Your task to perform on an android device: delete location history Image 0: 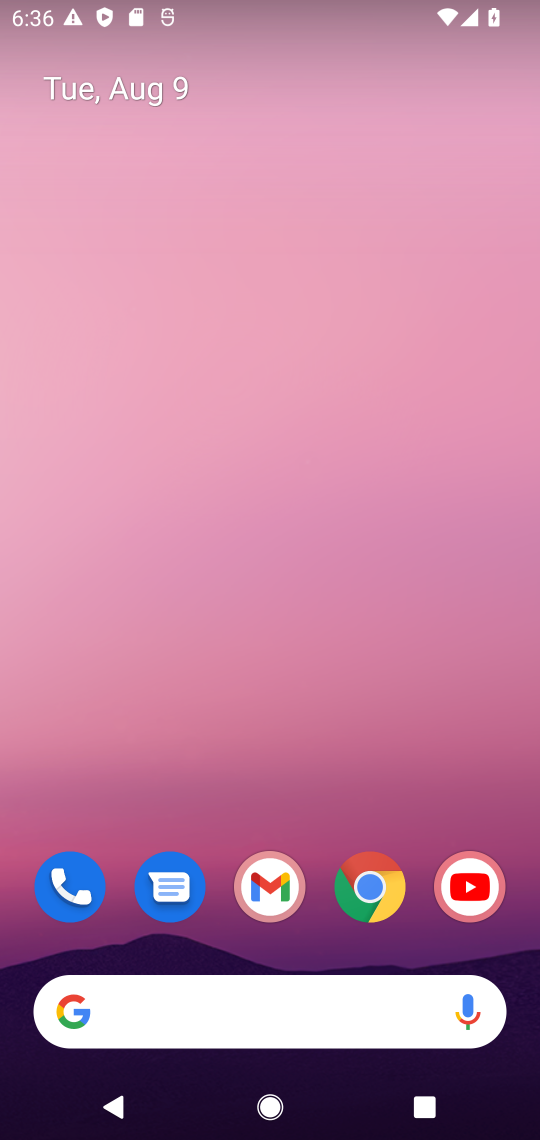
Step 0: drag from (326, 568) to (334, 0)
Your task to perform on an android device: delete location history Image 1: 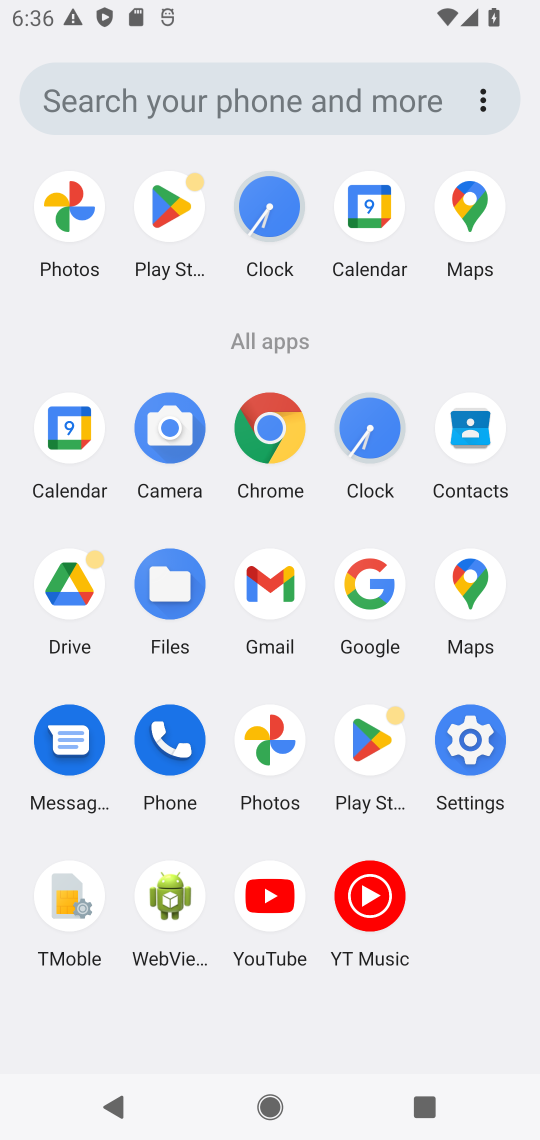
Step 1: click (479, 198)
Your task to perform on an android device: delete location history Image 2: 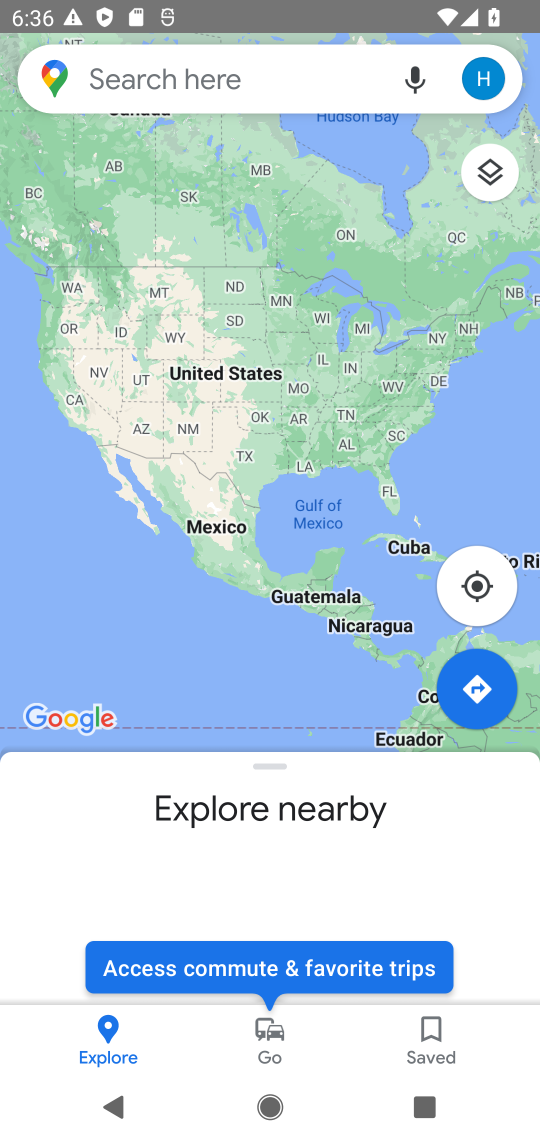
Step 2: click (485, 81)
Your task to perform on an android device: delete location history Image 3: 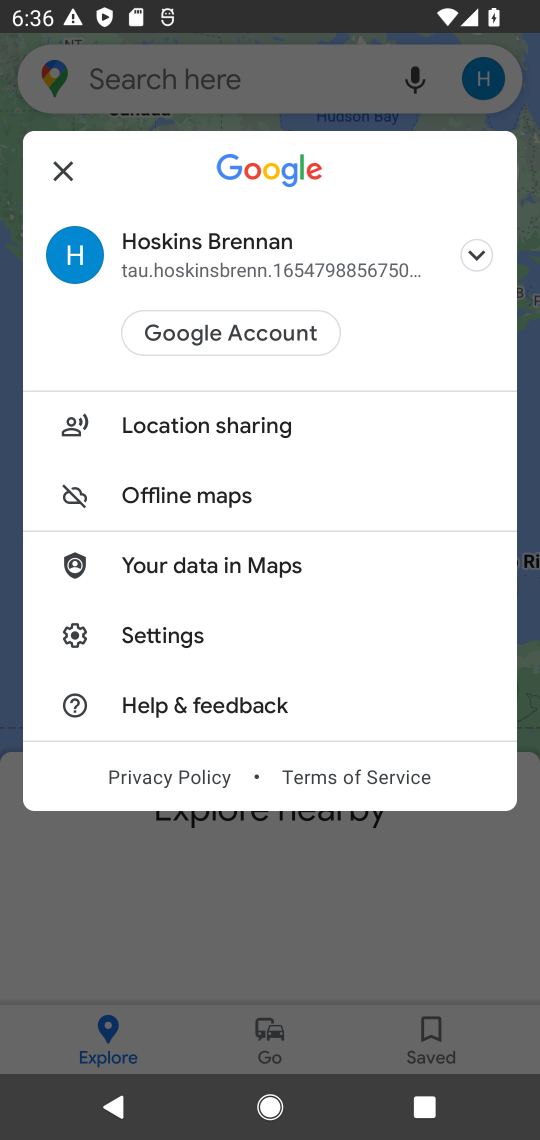
Step 3: drag from (294, 624) to (392, 355)
Your task to perform on an android device: delete location history Image 4: 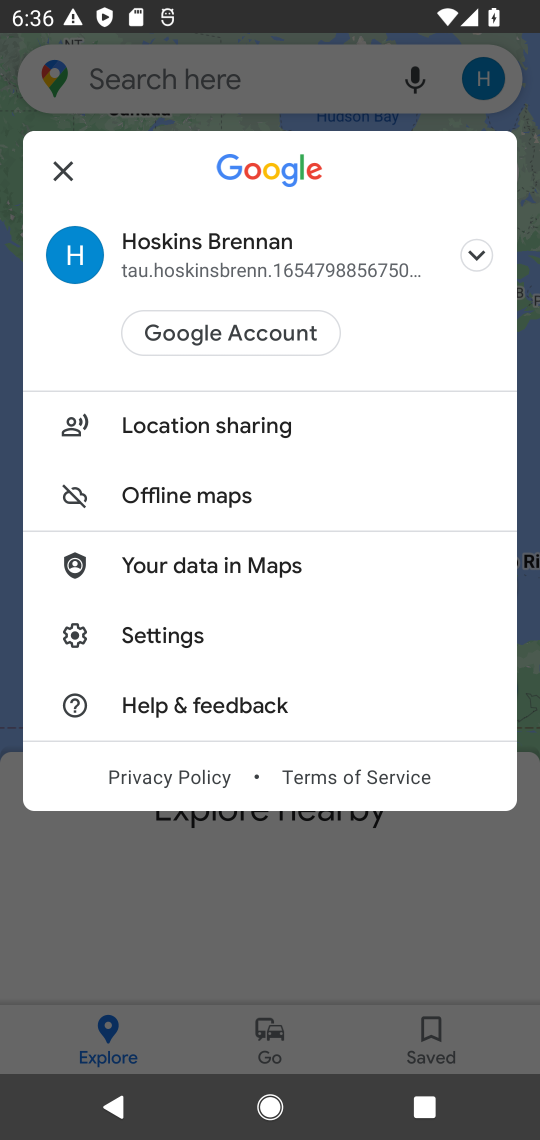
Step 4: click (207, 493)
Your task to perform on an android device: delete location history Image 5: 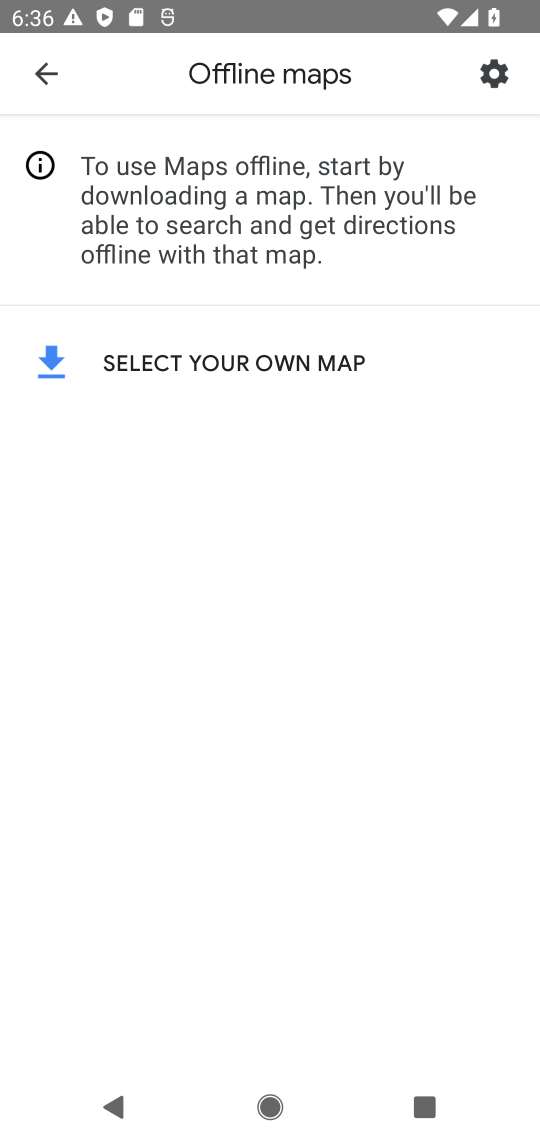
Step 5: click (48, 71)
Your task to perform on an android device: delete location history Image 6: 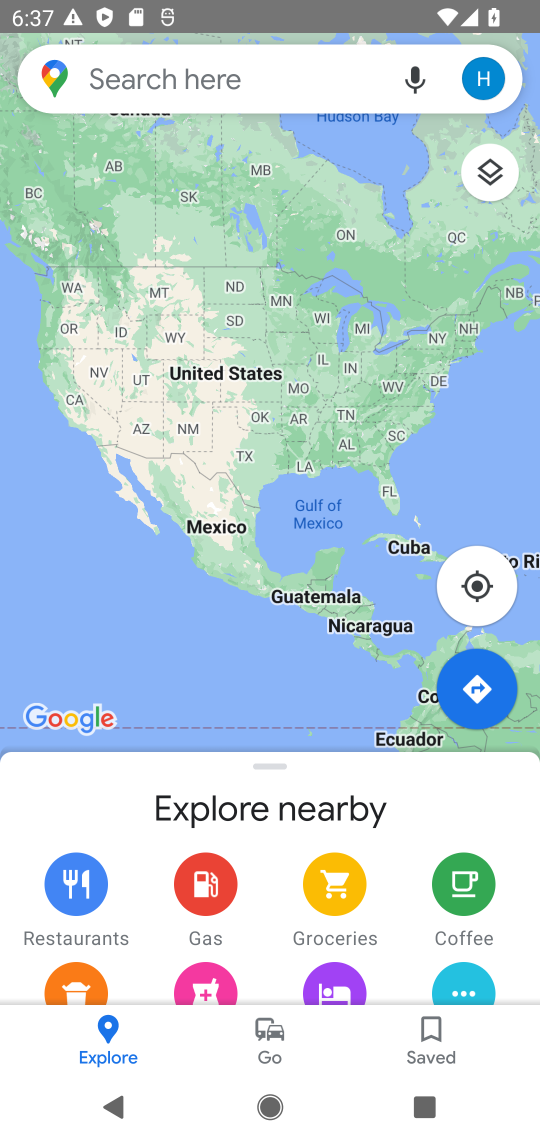
Step 6: click (267, 79)
Your task to perform on an android device: delete location history Image 7: 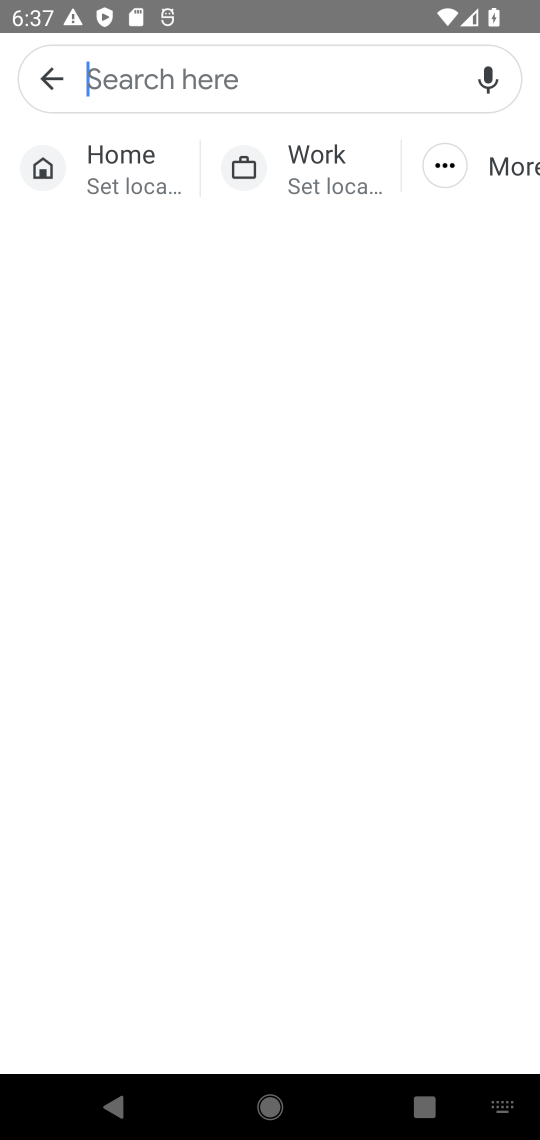
Step 7: click (452, 156)
Your task to perform on an android device: delete location history Image 8: 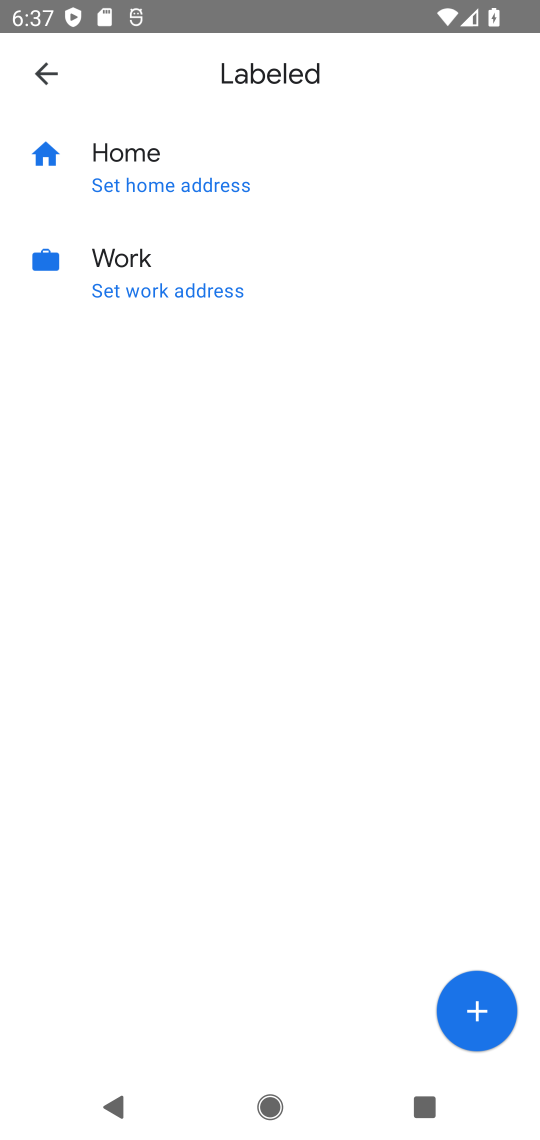
Step 8: click (45, 76)
Your task to perform on an android device: delete location history Image 9: 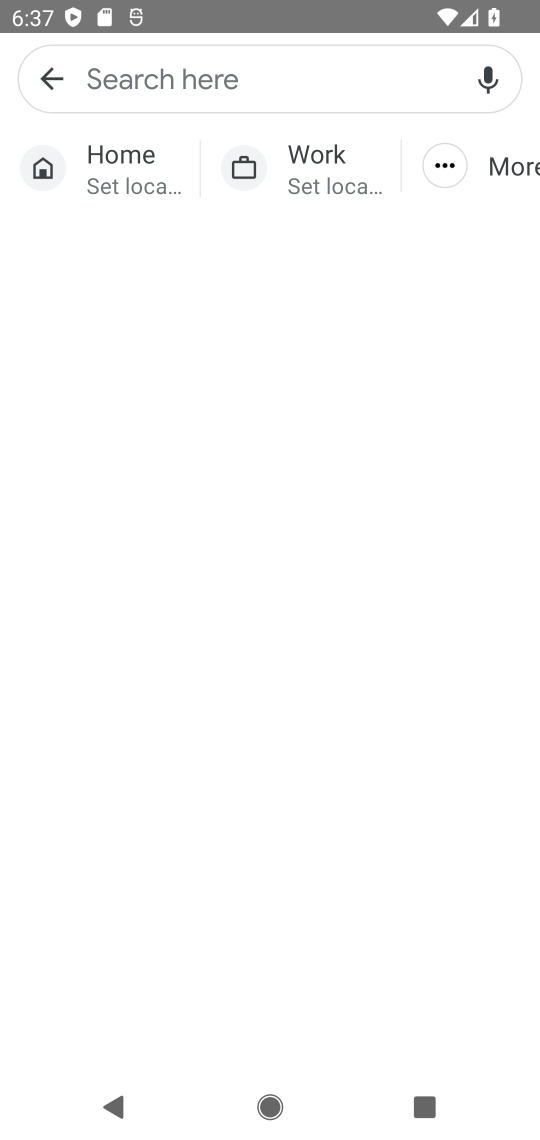
Step 9: click (45, 78)
Your task to perform on an android device: delete location history Image 10: 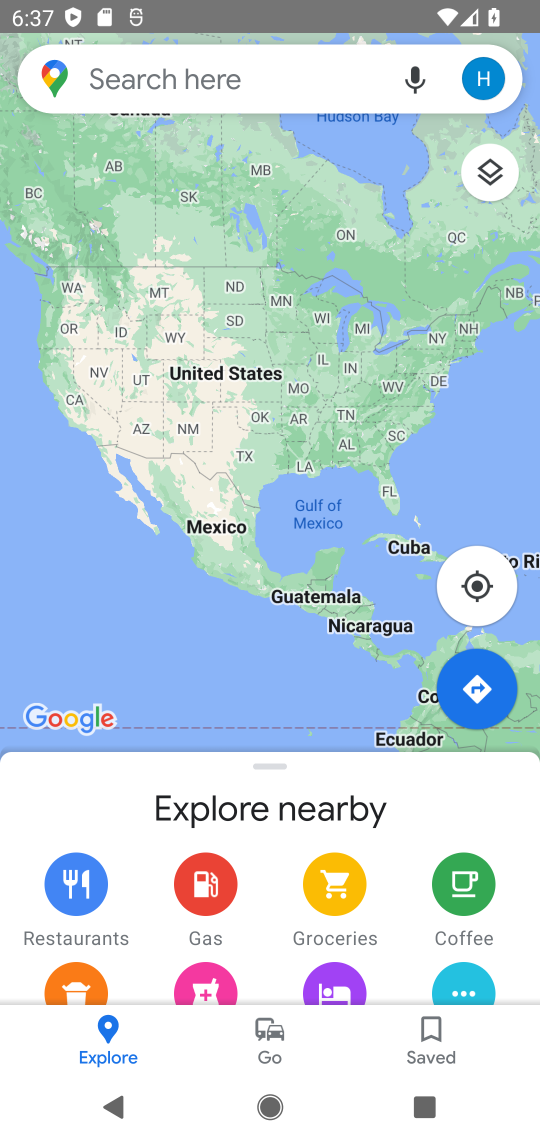
Step 10: click (491, 70)
Your task to perform on an android device: delete location history Image 11: 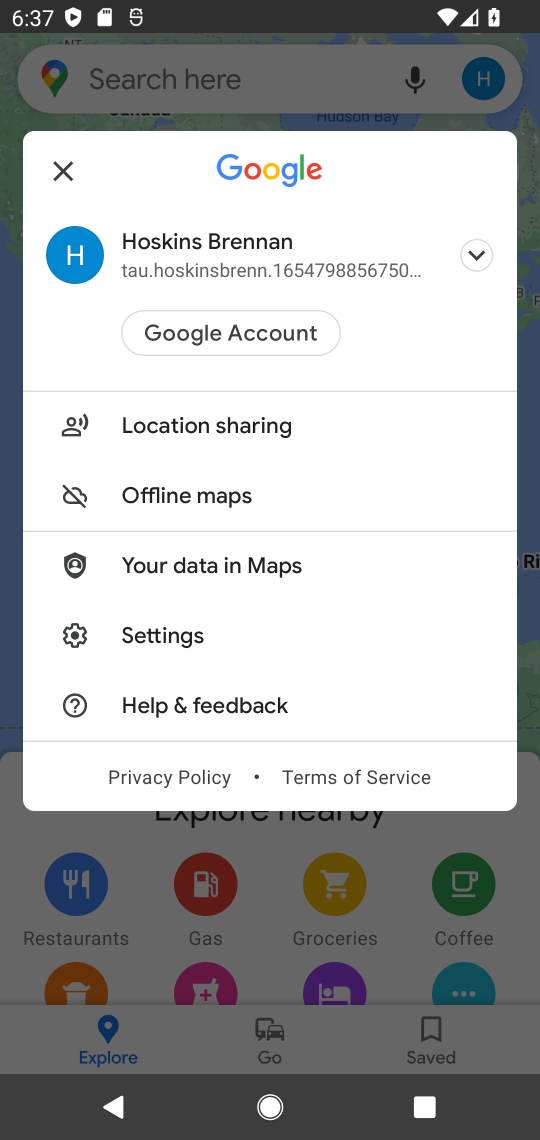
Step 11: click (259, 555)
Your task to perform on an android device: delete location history Image 12: 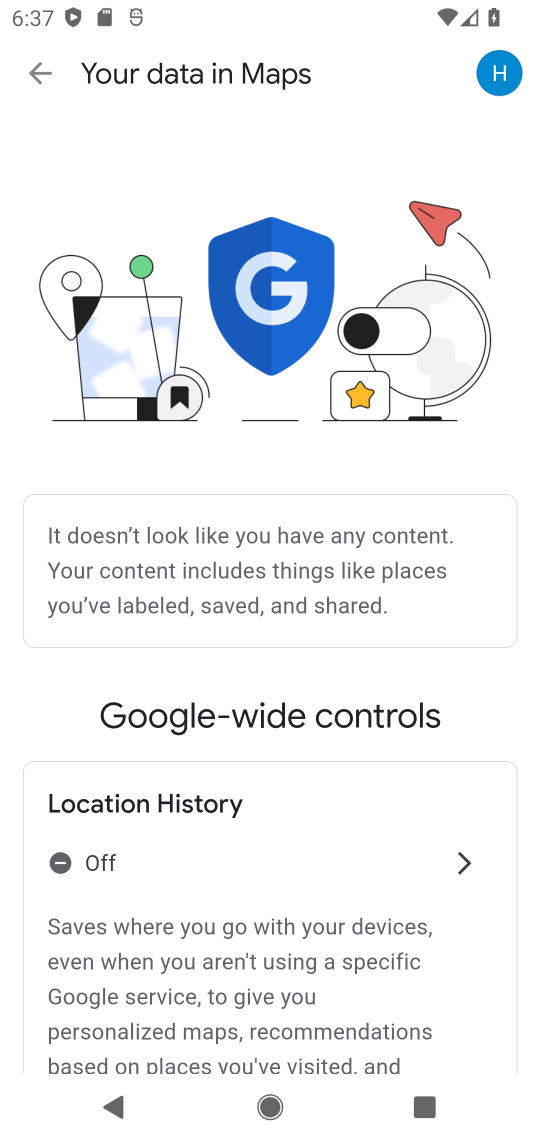
Step 12: drag from (336, 958) to (381, 427)
Your task to perform on an android device: delete location history Image 13: 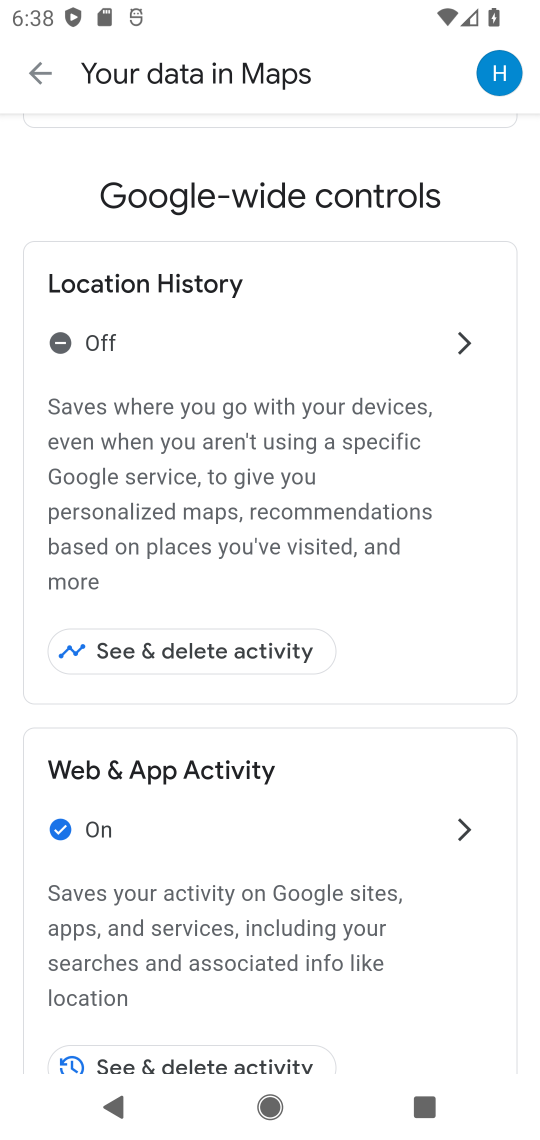
Step 13: click (299, 640)
Your task to perform on an android device: delete location history Image 14: 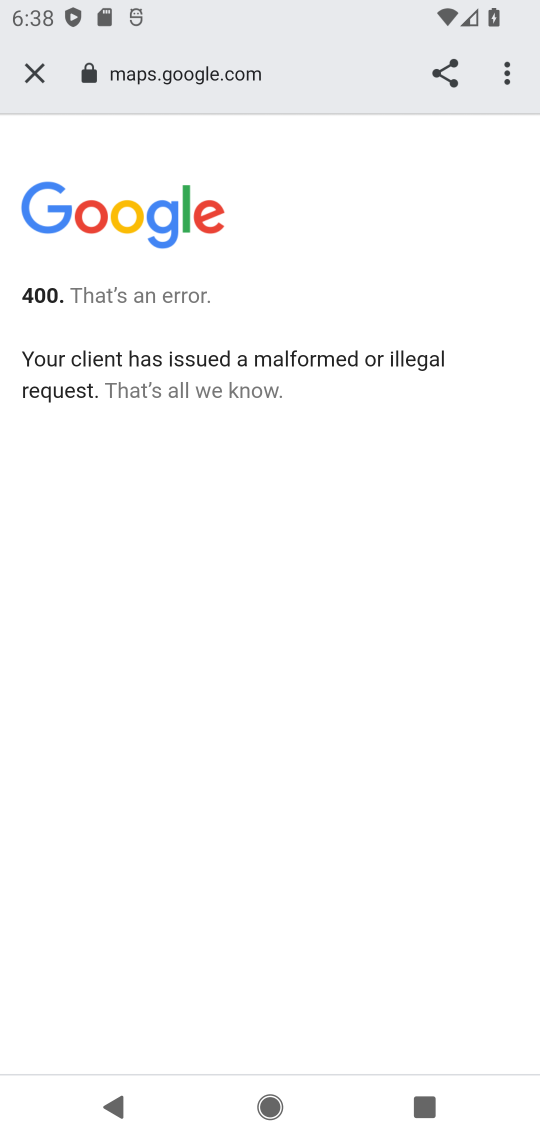
Step 14: click (36, 66)
Your task to perform on an android device: delete location history Image 15: 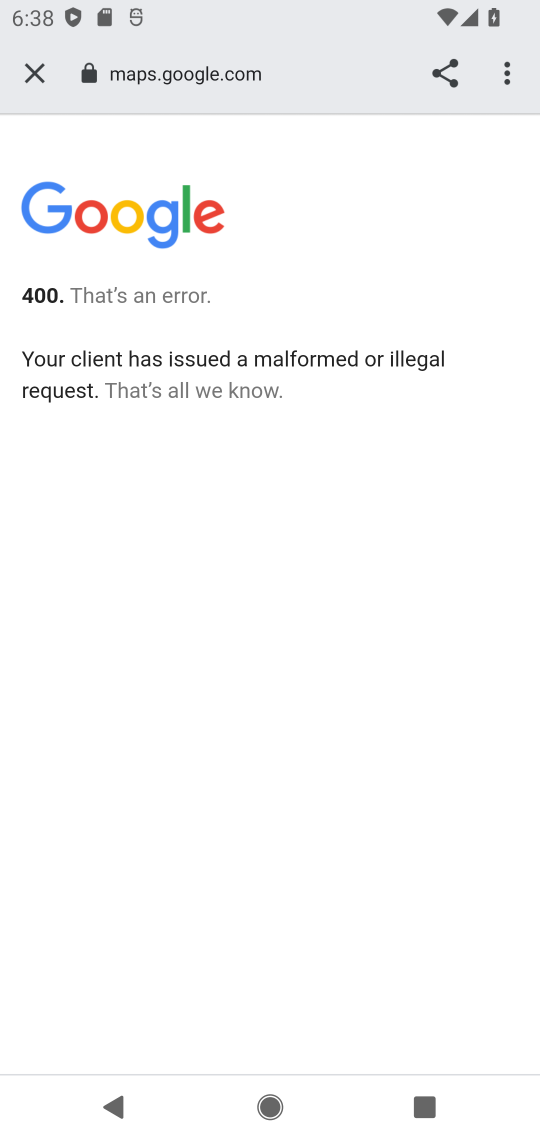
Step 15: click (35, 68)
Your task to perform on an android device: delete location history Image 16: 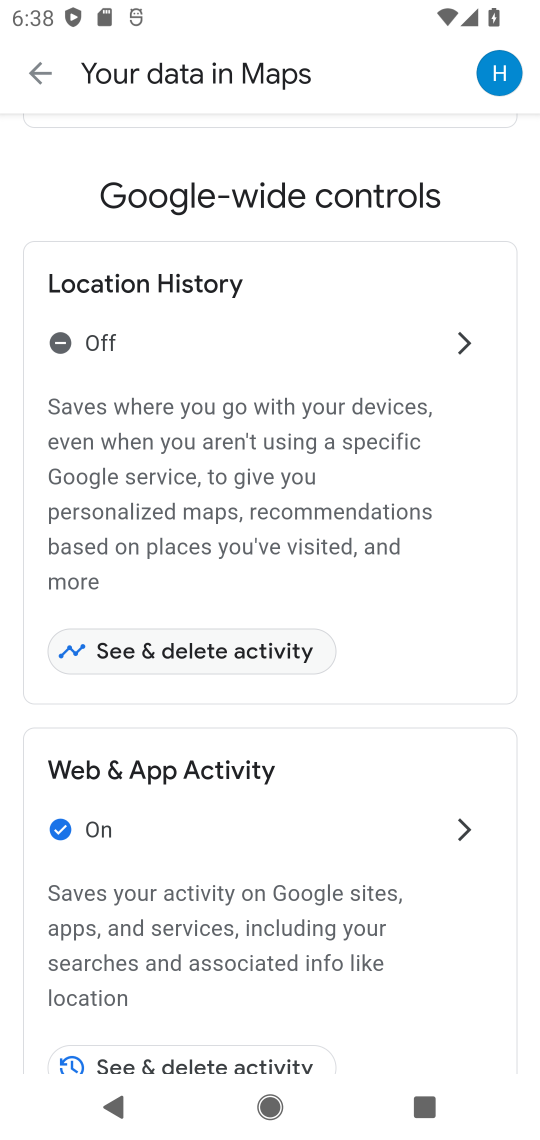
Step 16: task complete